Your task to perform on an android device: Open Maps and search for coffee Image 0: 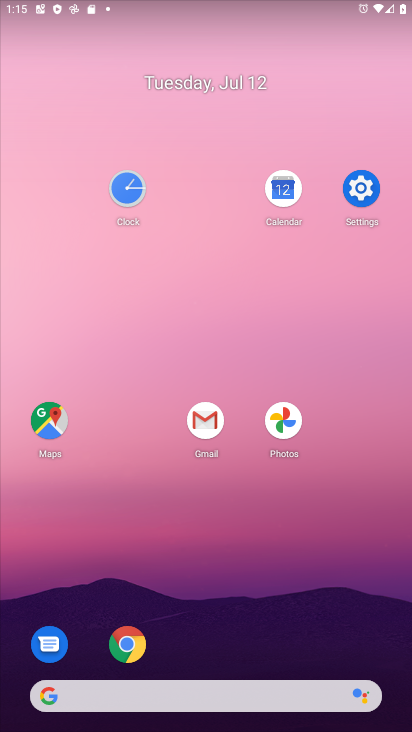
Step 0: click (44, 421)
Your task to perform on an android device: Open Maps and search for coffee Image 1: 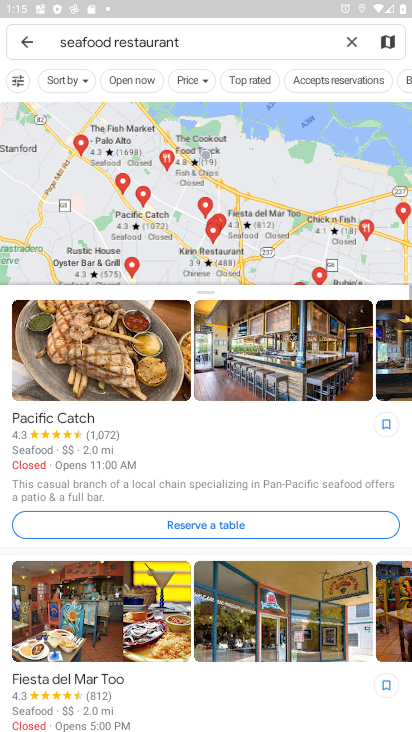
Step 1: click (354, 43)
Your task to perform on an android device: Open Maps and search for coffee Image 2: 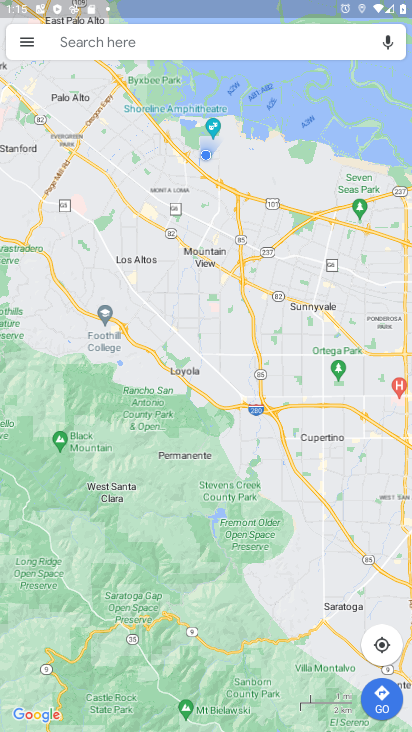
Step 2: click (124, 46)
Your task to perform on an android device: Open Maps and search for coffee Image 3: 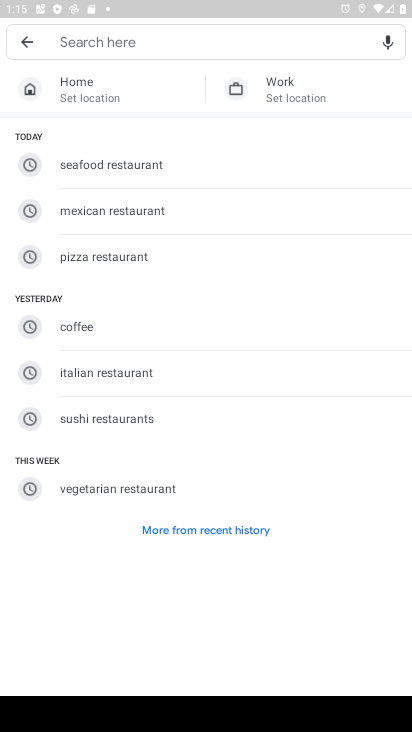
Step 3: click (176, 329)
Your task to perform on an android device: Open Maps and search for coffee Image 4: 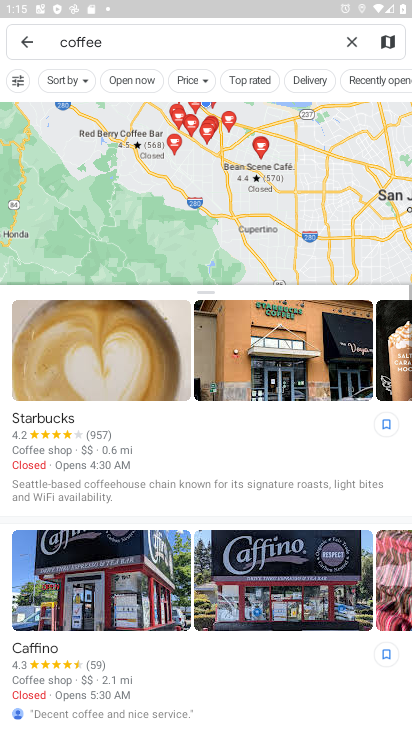
Step 4: task complete